Your task to perform on an android device: Do I have any events this weekend? Image 0: 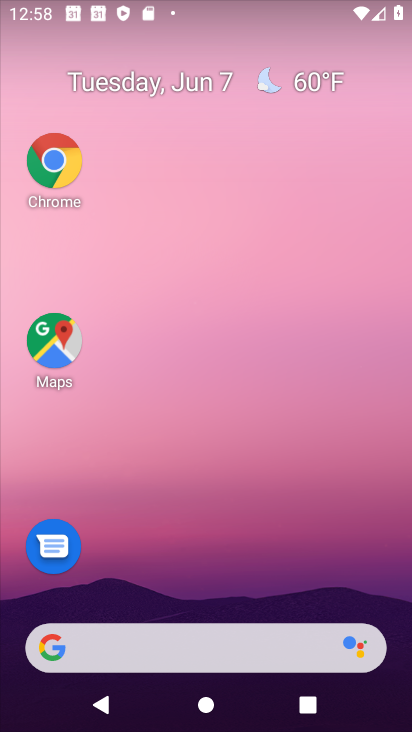
Step 0: drag from (185, 587) to (260, 192)
Your task to perform on an android device: Do I have any events this weekend? Image 1: 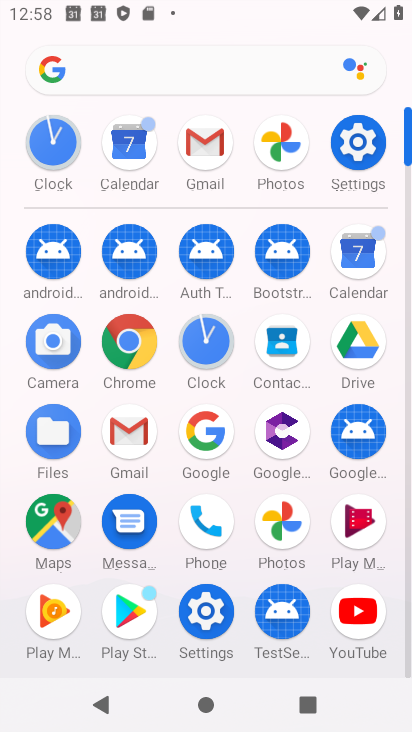
Step 1: click (368, 251)
Your task to perform on an android device: Do I have any events this weekend? Image 2: 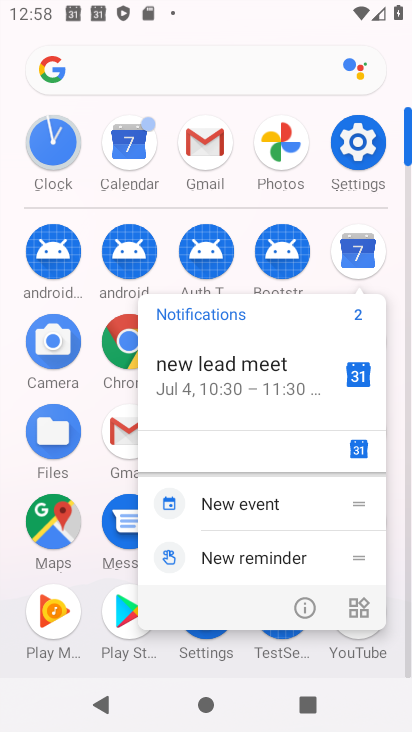
Step 2: click (313, 610)
Your task to perform on an android device: Do I have any events this weekend? Image 3: 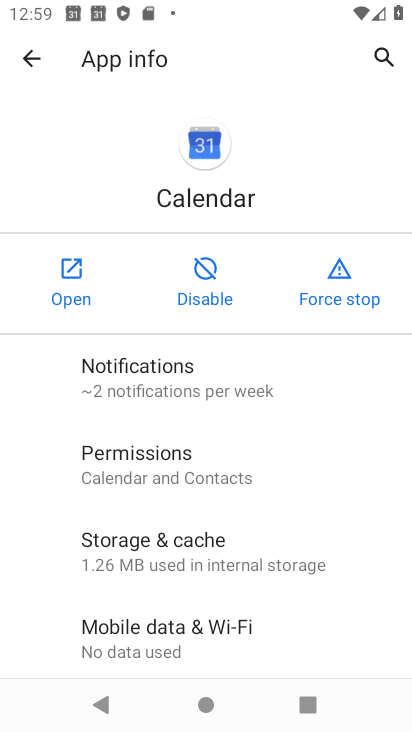
Step 3: click (70, 292)
Your task to perform on an android device: Do I have any events this weekend? Image 4: 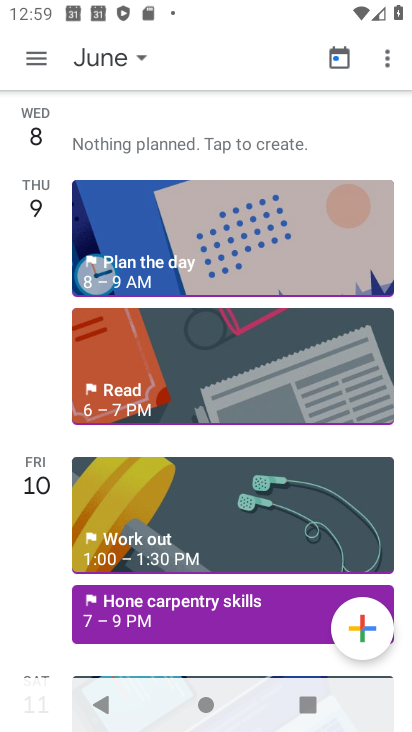
Step 4: click (127, 57)
Your task to perform on an android device: Do I have any events this weekend? Image 5: 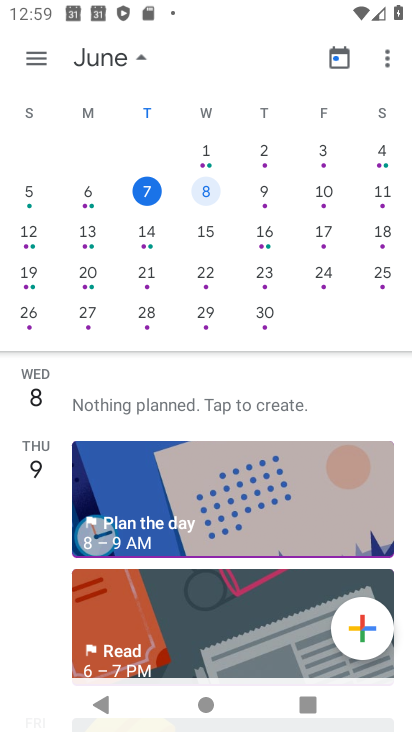
Step 5: click (385, 192)
Your task to perform on an android device: Do I have any events this weekend? Image 6: 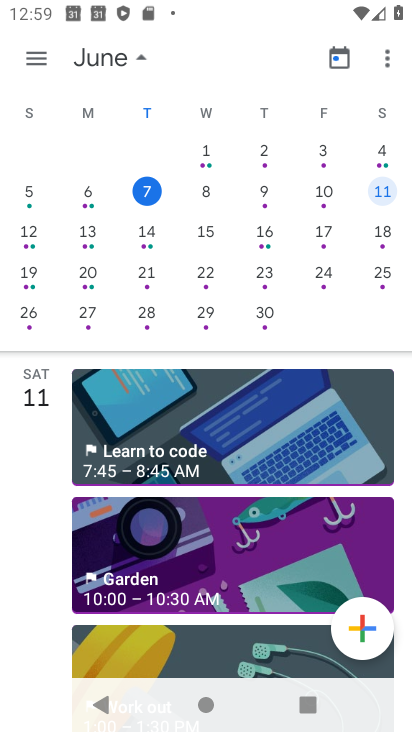
Step 6: task complete